Your task to perform on an android device: turn off priority inbox in the gmail app Image 0: 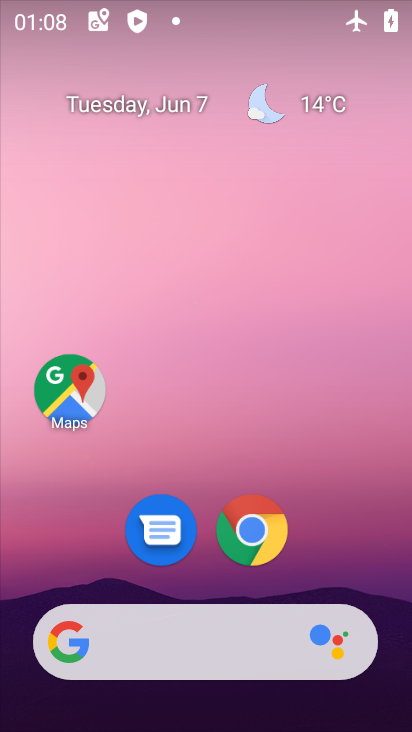
Step 0: drag from (174, 584) to (214, 268)
Your task to perform on an android device: turn off priority inbox in the gmail app Image 1: 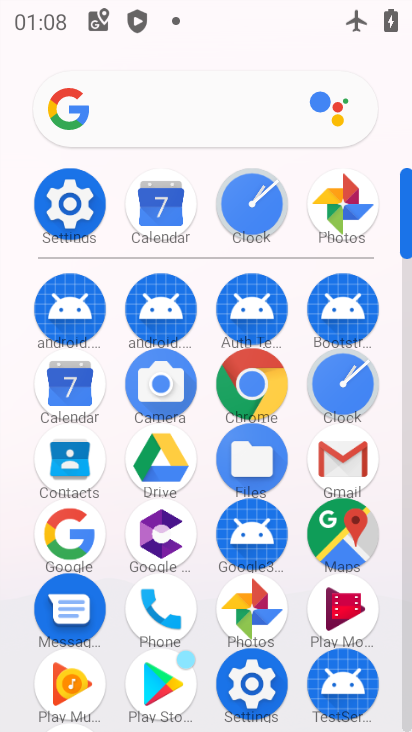
Step 1: click (330, 458)
Your task to perform on an android device: turn off priority inbox in the gmail app Image 2: 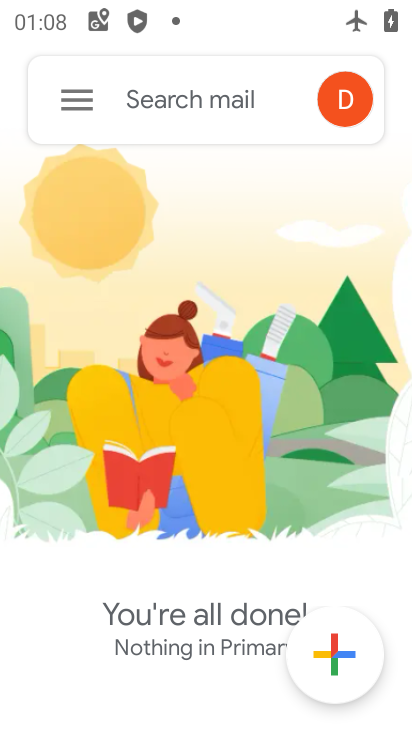
Step 2: click (66, 100)
Your task to perform on an android device: turn off priority inbox in the gmail app Image 3: 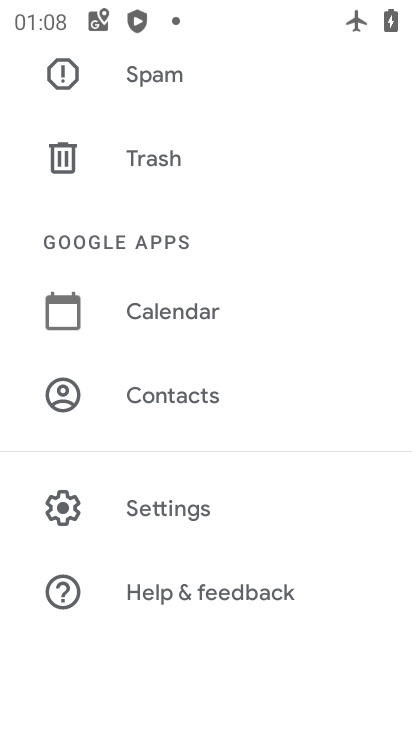
Step 3: click (180, 505)
Your task to perform on an android device: turn off priority inbox in the gmail app Image 4: 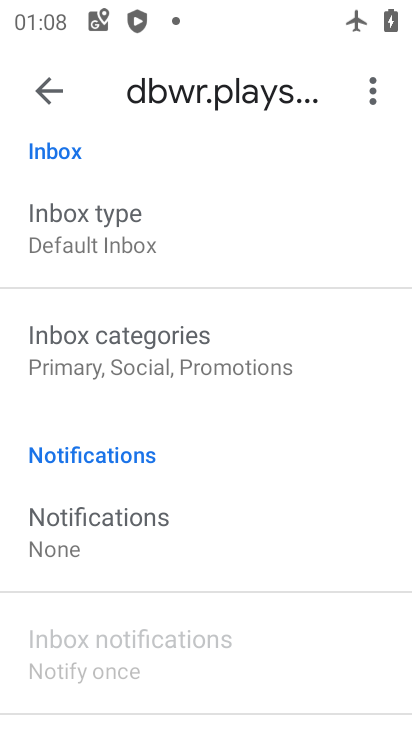
Step 4: click (130, 240)
Your task to perform on an android device: turn off priority inbox in the gmail app Image 5: 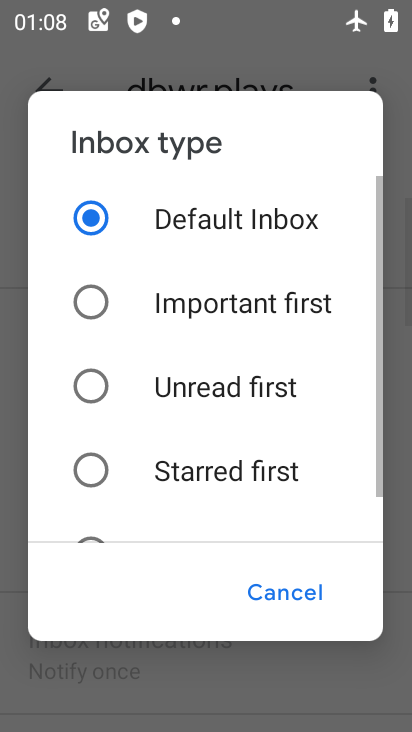
Step 5: drag from (168, 490) to (197, 210)
Your task to perform on an android device: turn off priority inbox in the gmail app Image 6: 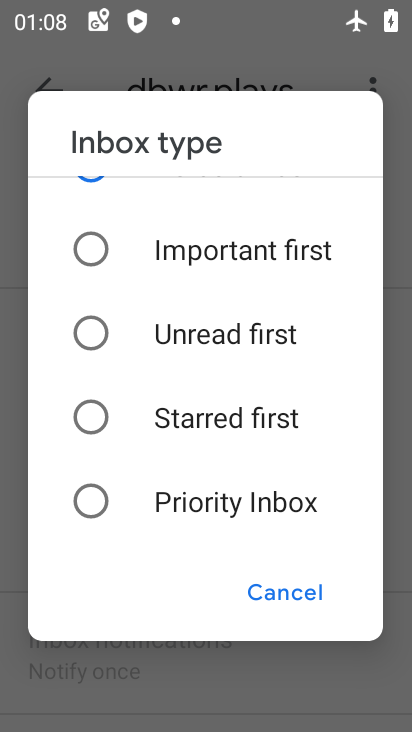
Step 6: click (188, 509)
Your task to perform on an android device: turn off priority inbox in the gmail app Image 7: 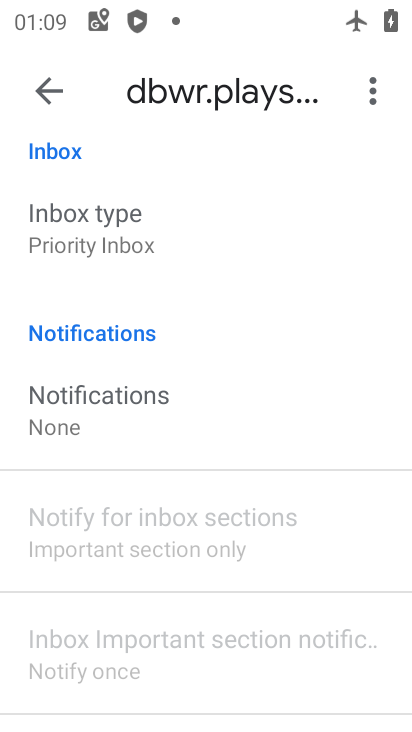
Step 7: task complete